Your task to perform on an android device: open app "Pandora - Music & Podcasts" Image 0: 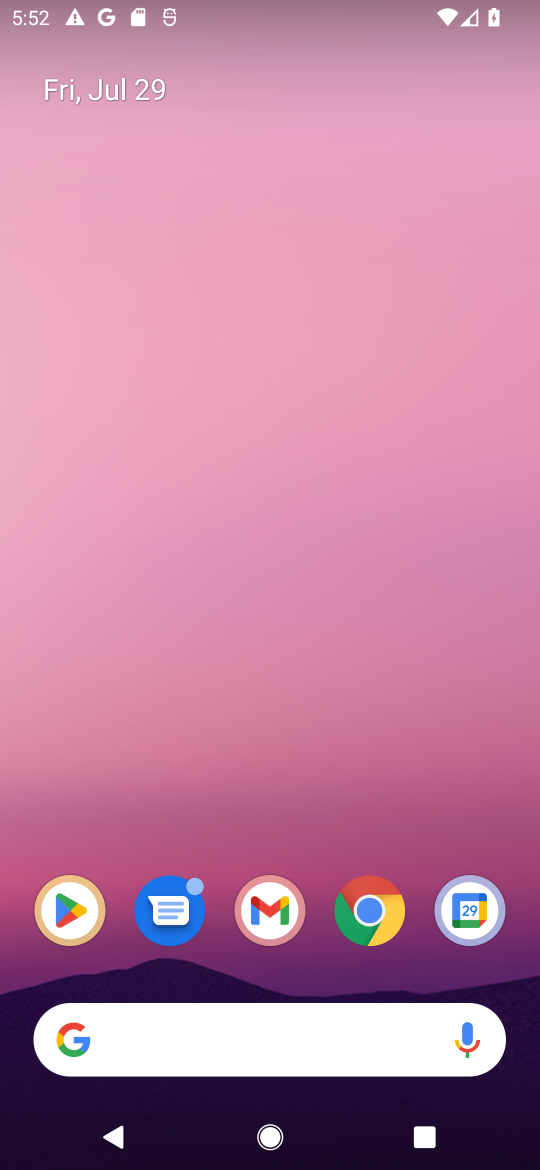
Step 0: drag from (219, 811) to (310, 164)
Your task to perform on an android device: open app "Pandora - Music & Podcasts" Image 1: 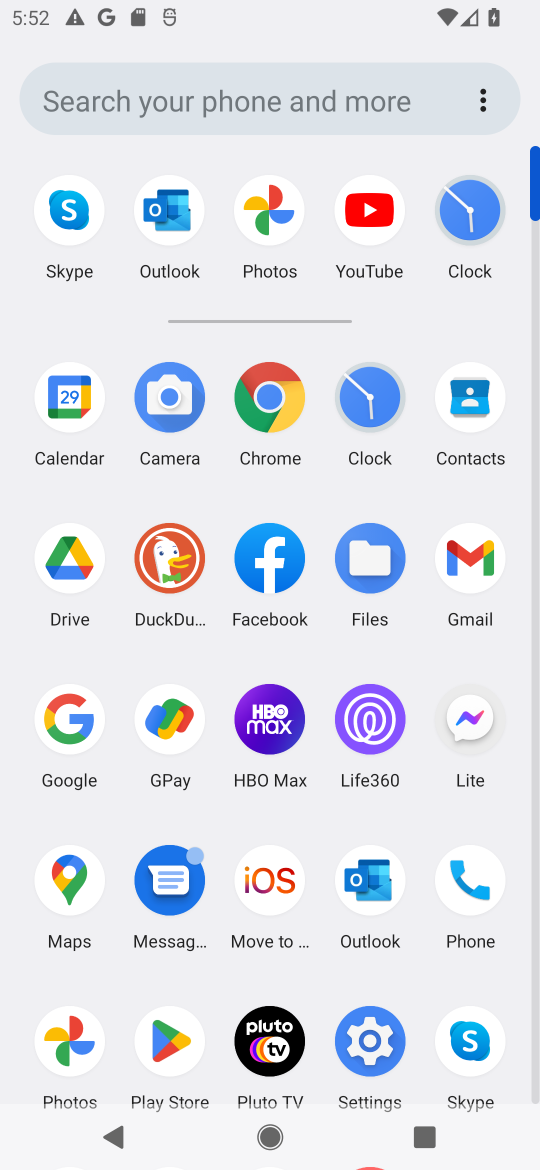
Step 1: click (157, 1046)
Your task to perform on an android device: open app "Pandora - Music & Podcasts" Image 2: 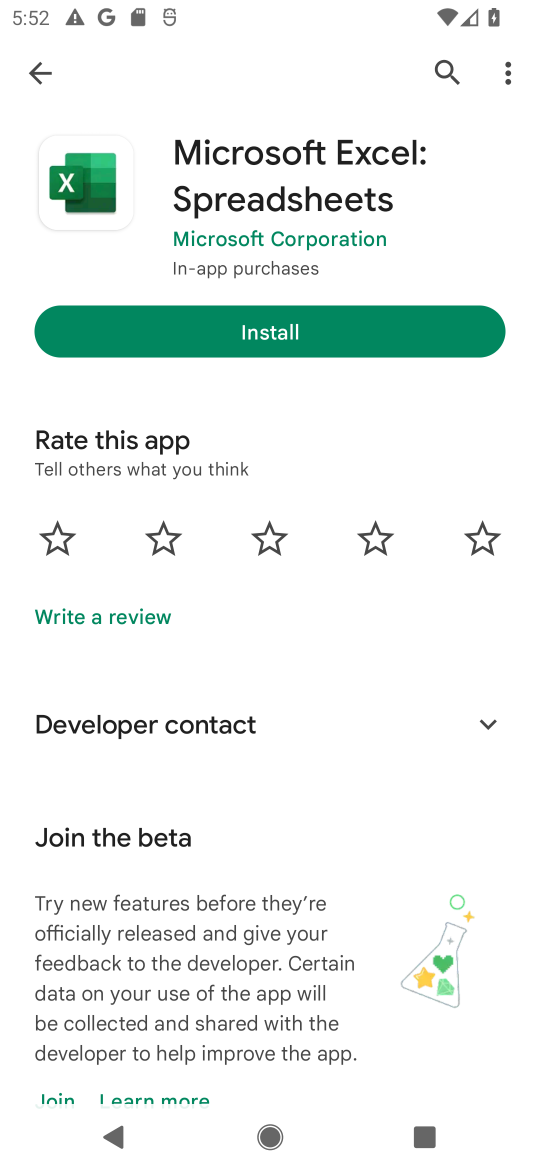
Step 2: click (47, 69)
Your task to perform on an android device: open app "Pandora - Music & Podcasts" Image 3: 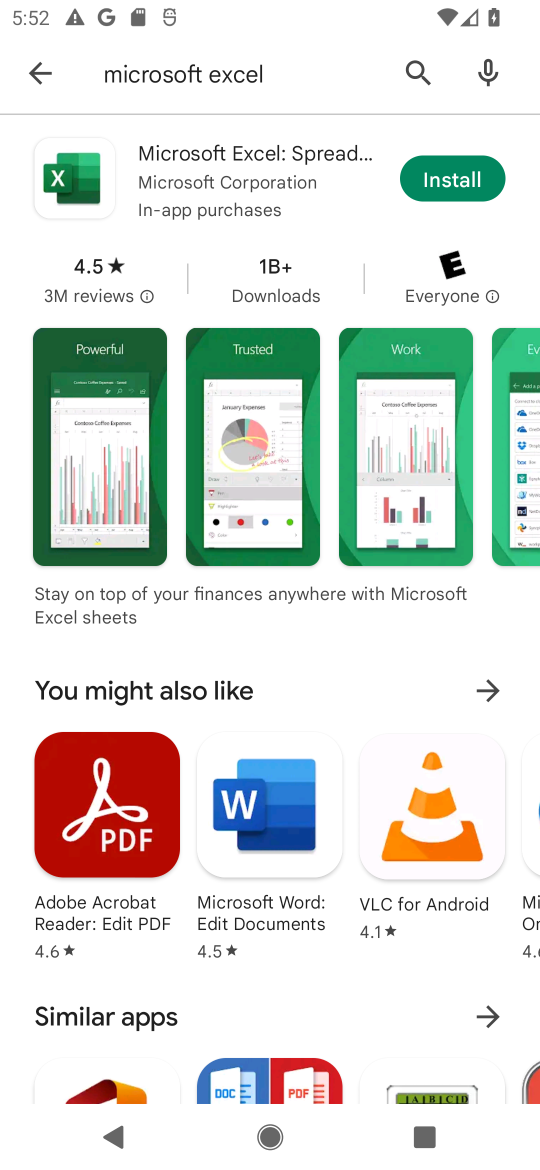
Step 3: click (49, 68)
Your task to perform on an android device: open app "Pandora - Music & Podcasts" Image 4: 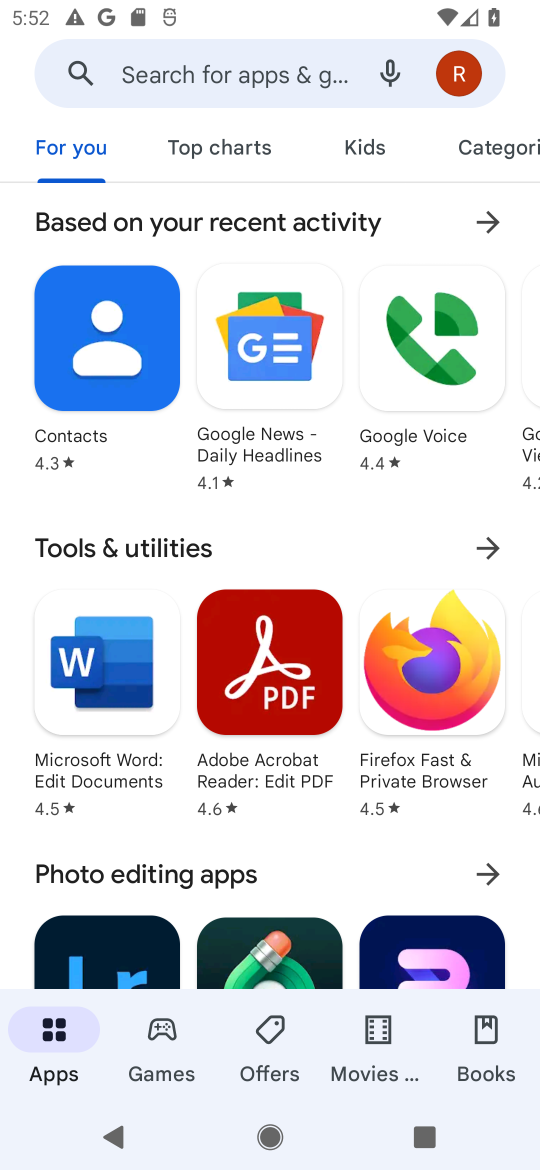
Step 4: click (201, 72)
Your task to perform on an android device: open app "Pandora - Music & Podcasts" Image 5: 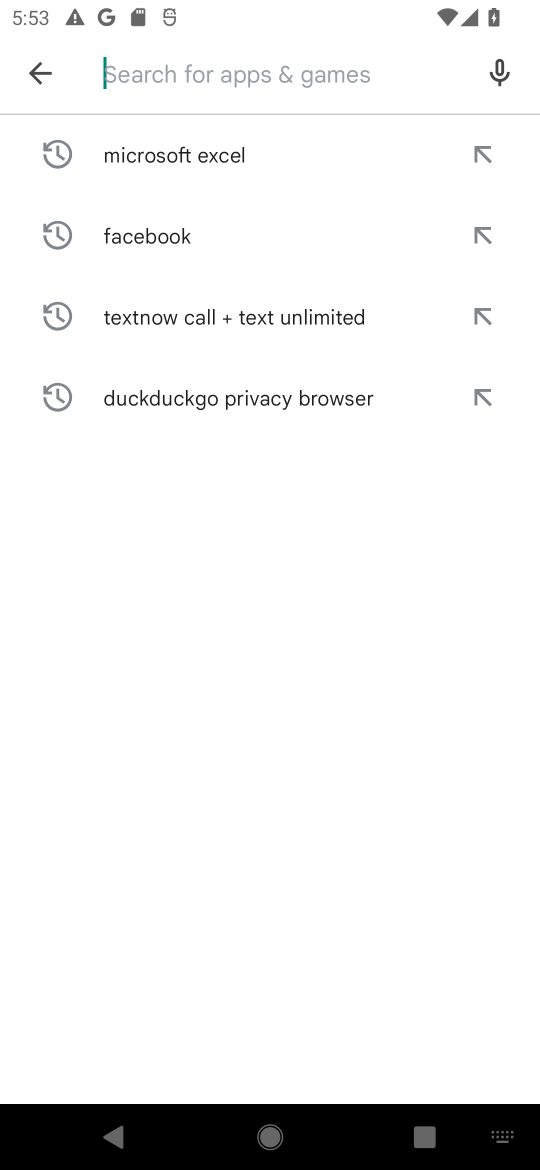
Step 5: type "Pandora - Music & Podcasts"
Your task to perform on an android device: open app "Pandora - Music & Podcasts" Image 6: 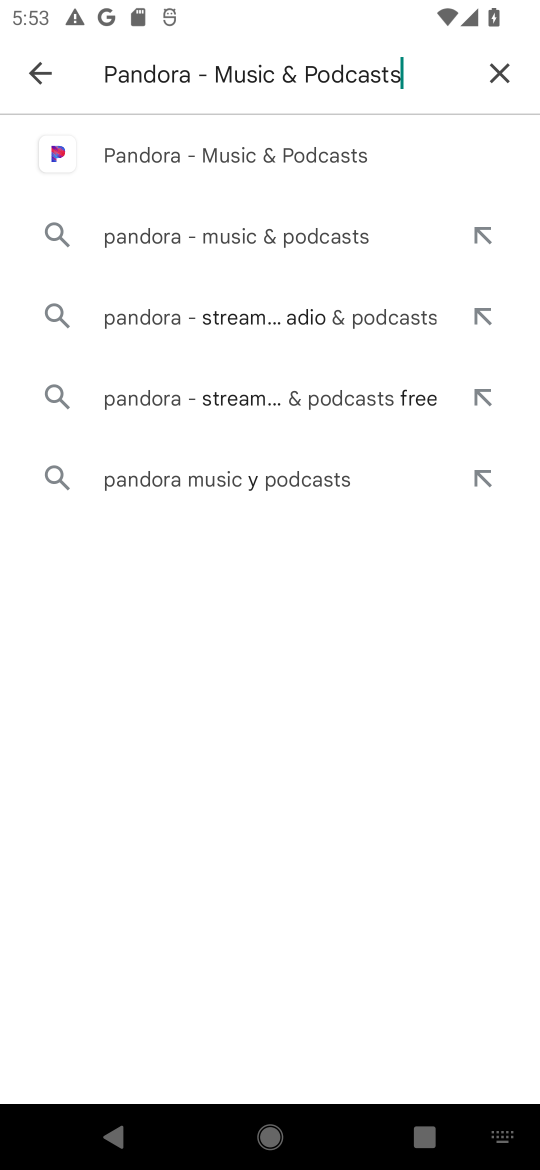
Step 6: click (250, 161)
Your task to perform on an android device: open app "Pandora - Music & Podcasts" Image 7: 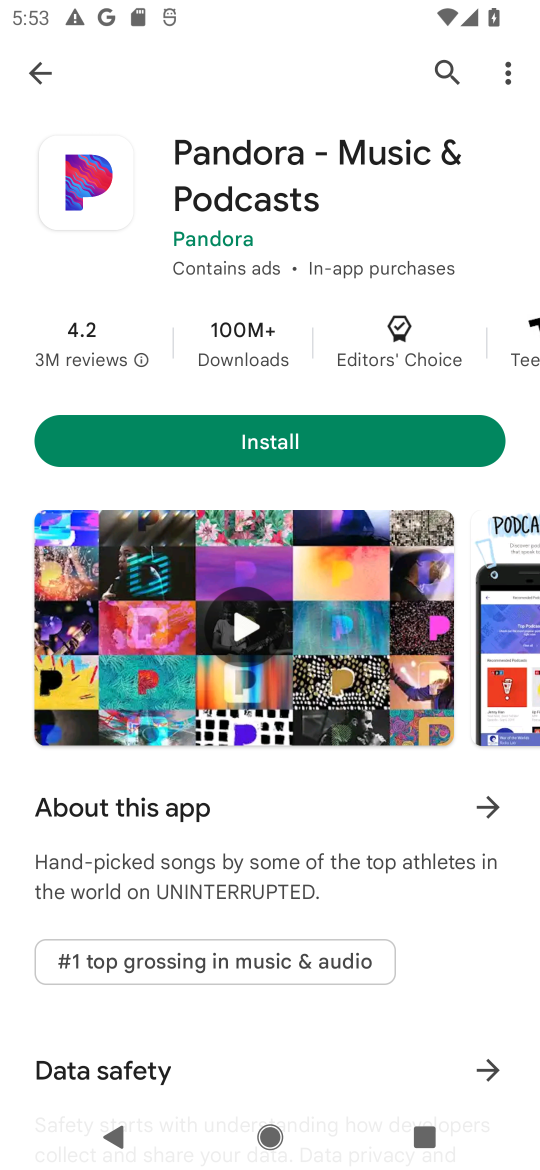
Step 7: click (294, 443)
Your task to perform on an android device: open app "Pandora - Music & Podcasts" Image 8: 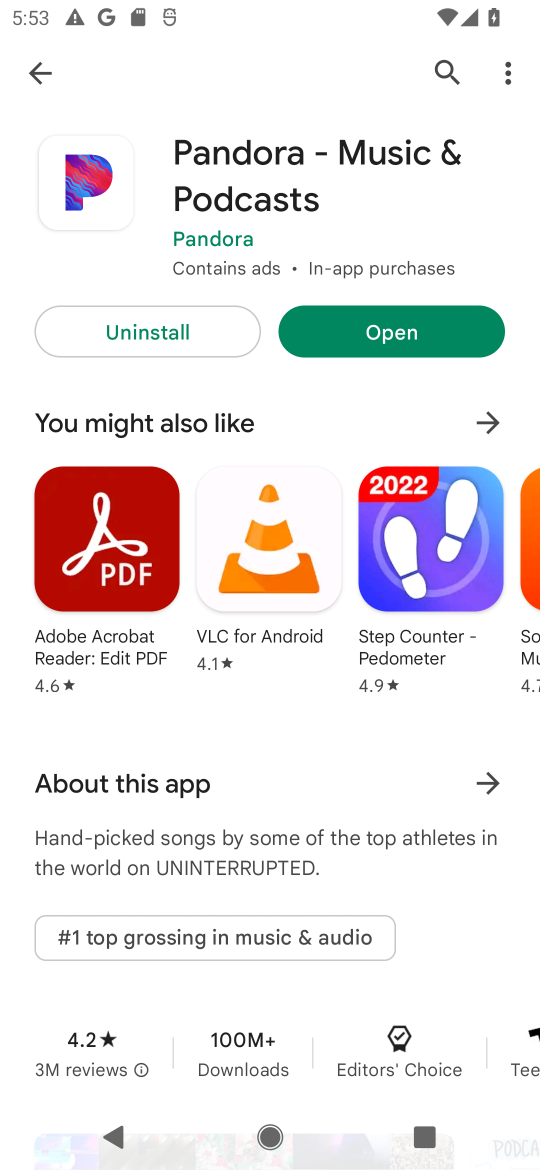
Step 8: click (426, 319)
Your task to perform on an android device: open app "Pandora - Music & Podcasts" Image 9: 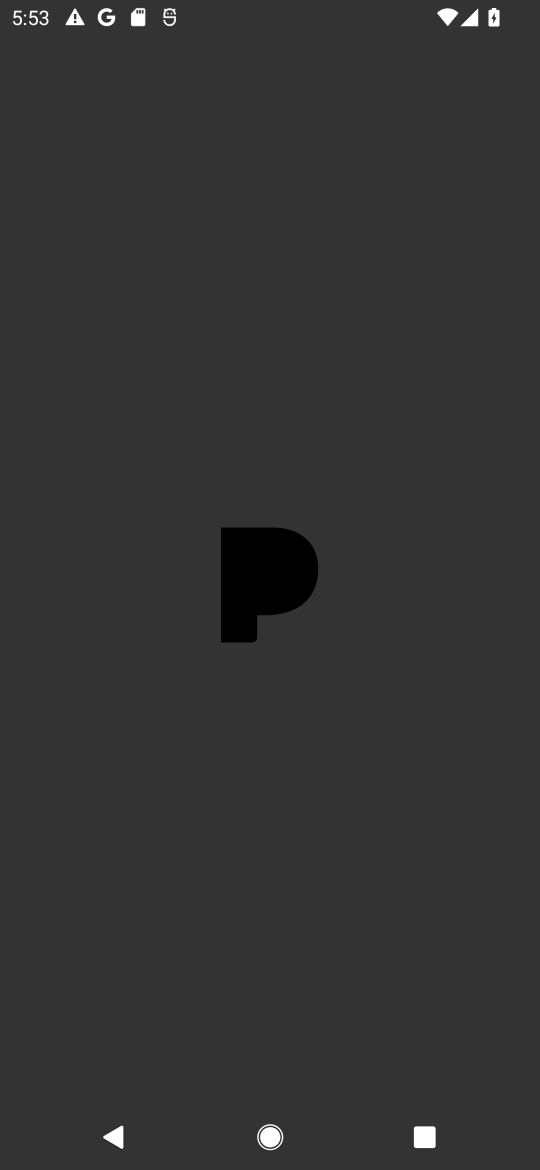
Step 9: task complete